Your task to perform on an android device: toggle show notifications on the lock screen Image 0: 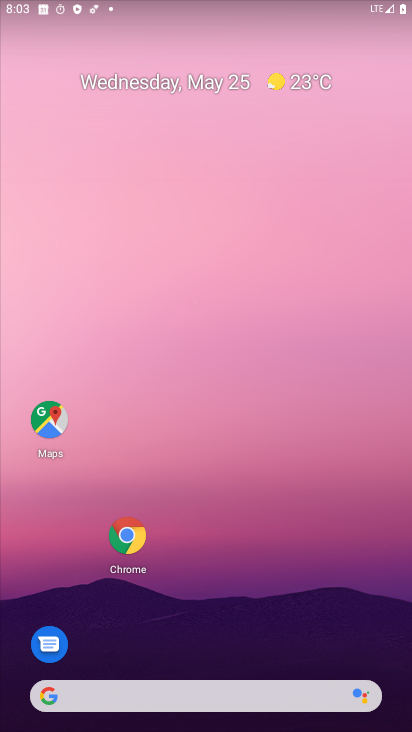
Step 0: drag from (199, 684) to (217, 129)
Your task to perform on an android device: toggle show notifications on the lock screen Image 1: 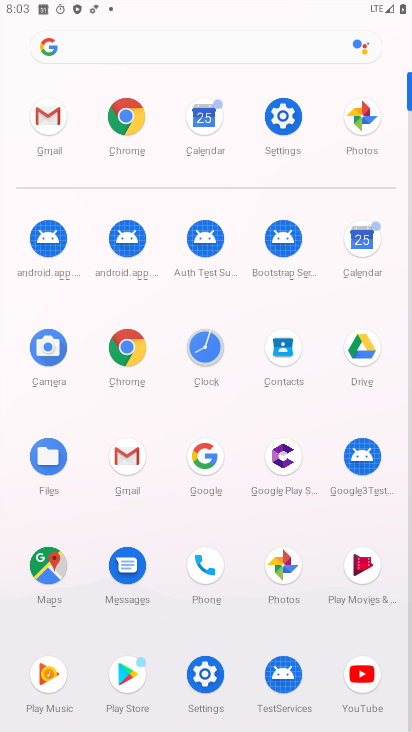
Step 1: click (282, 114)
Your task to perform on an android device: toggle show notifications on the lock screen Image 2: 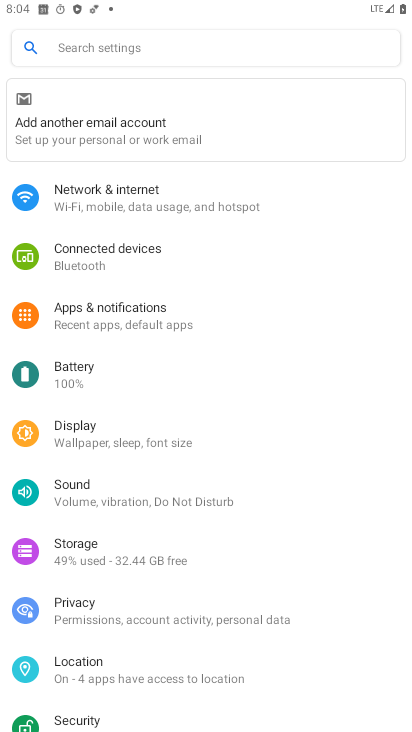
Step 2: click (167, 323)
Your task to perform on an android device: toggle show notifications on the lock screen Image 3: 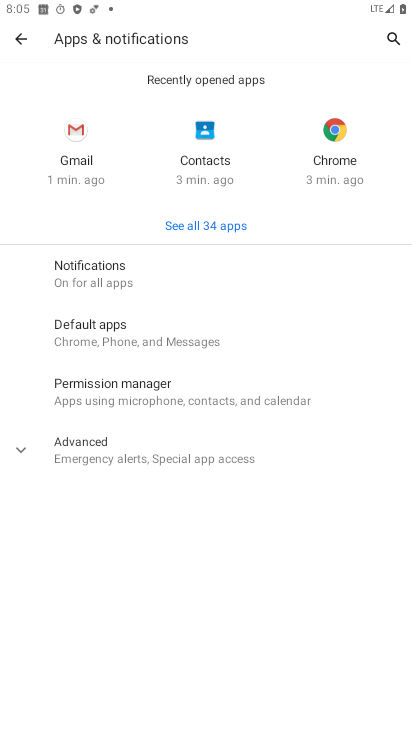
Step 3: click (135, 275)
Your task to perform on an android device: toggle show notifications on the lock screen Image 4: 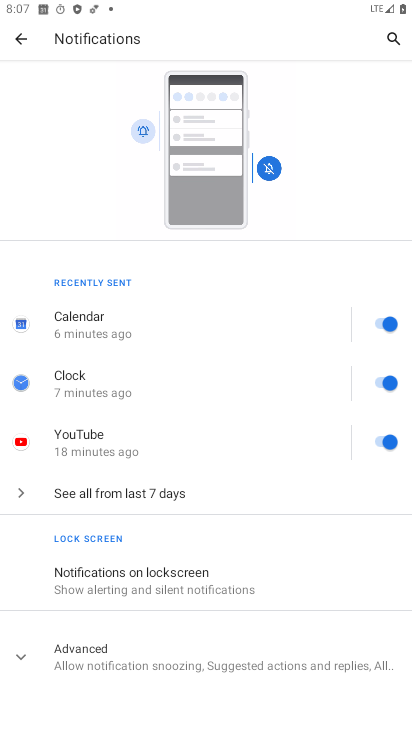
Step 4: click (210, 572)
Your task to perform on an android device: toggle show notifications on the lock screen Image 5: 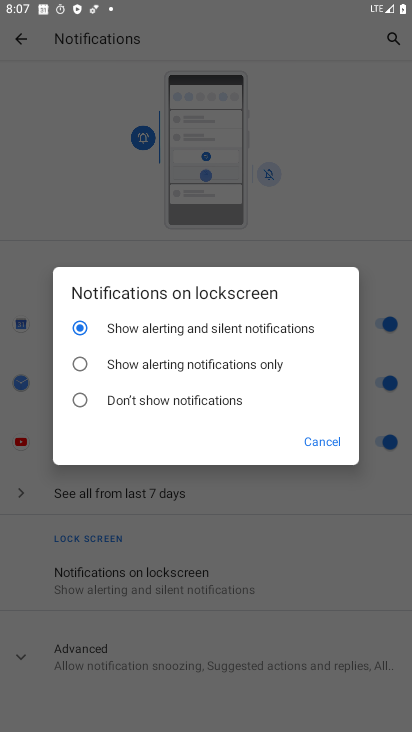
Step 5: click (205, 313)
Your task to perform on an android device: toggle show notifications on the lock screen Image 6: 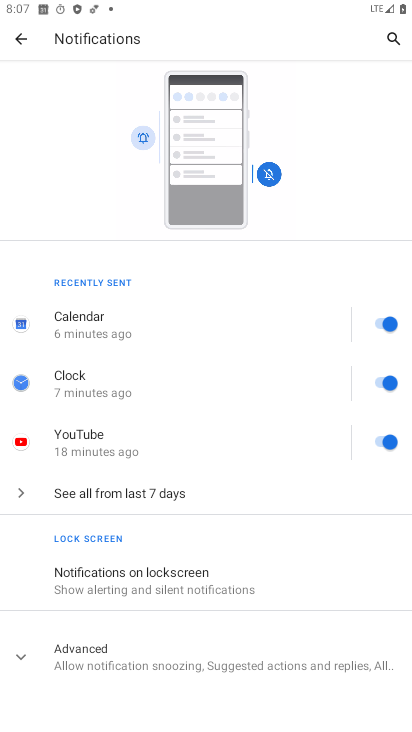
Step 6: task complete